Your task to perform on an android device: turn notification dots on Image 0: 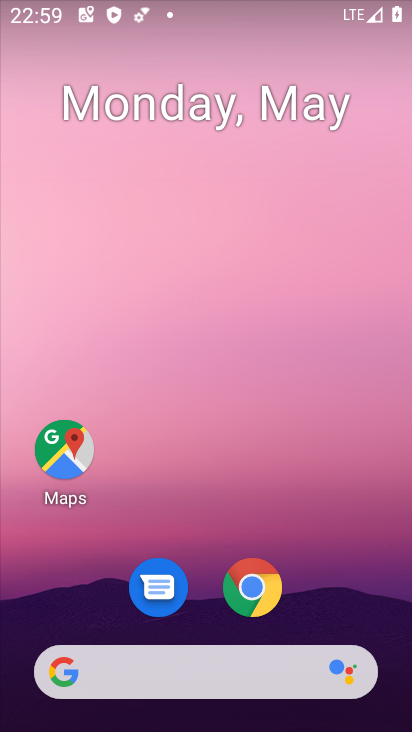
Step 0: drag from (193, 624) to (102, 44)
Your task to perform on an android device: turn notification dots on Image 1: 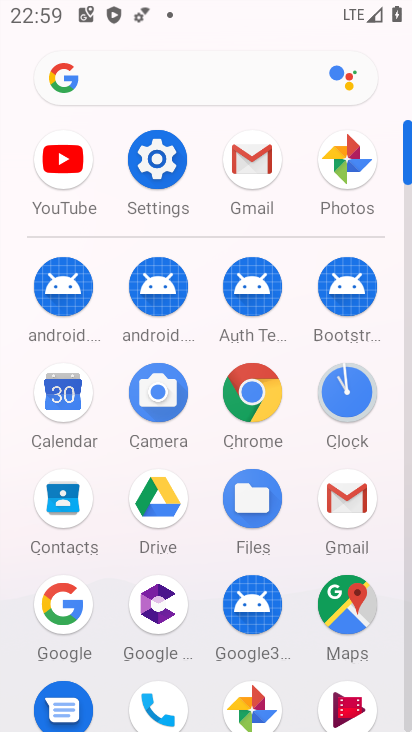
Step 1: click (172, 170)
Your task to perform on an android device: turn notification dots on Image 2: 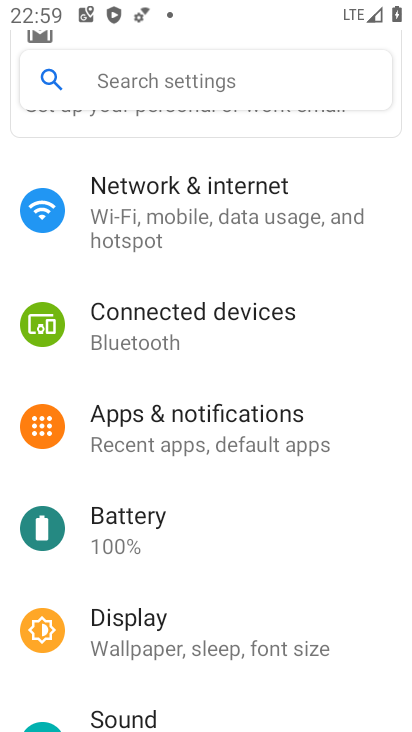
Step 2: click (256, 418)
Your task to perform on an android device: turn notification dots on Image 3: 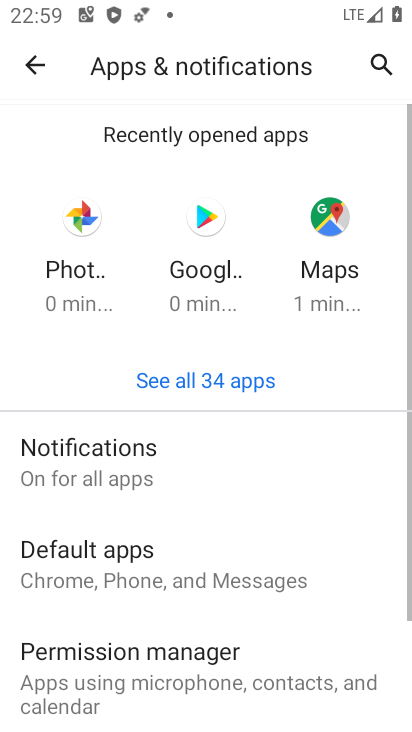
Step 3: click (124, 486)
Your task to perform on an android device: turn notification dots on Image 4: 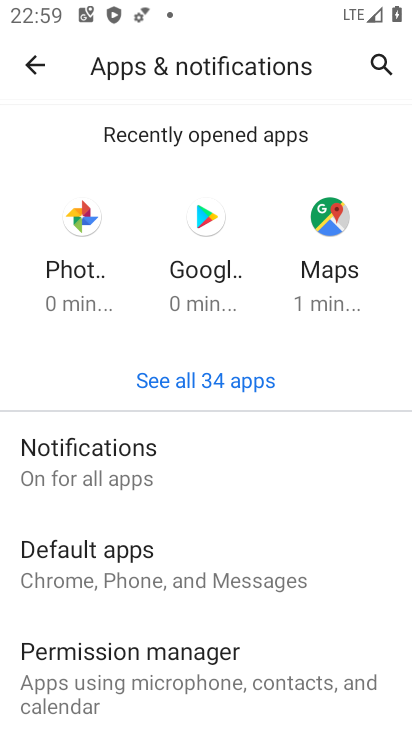
Step 4: drag from (123, 485) to (103, 7)
Your task to perform on an android device: turn notification dots on Image 5: 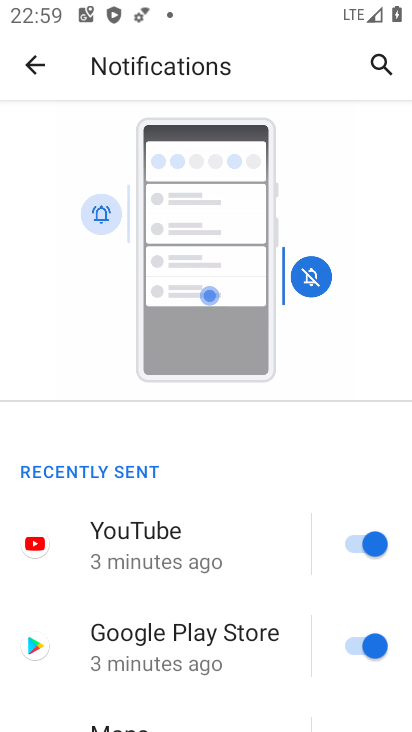
Step 5: drag from (173, 587) to (136, 71)
Your task to perform on an android device: turn notification dots on Image 6: 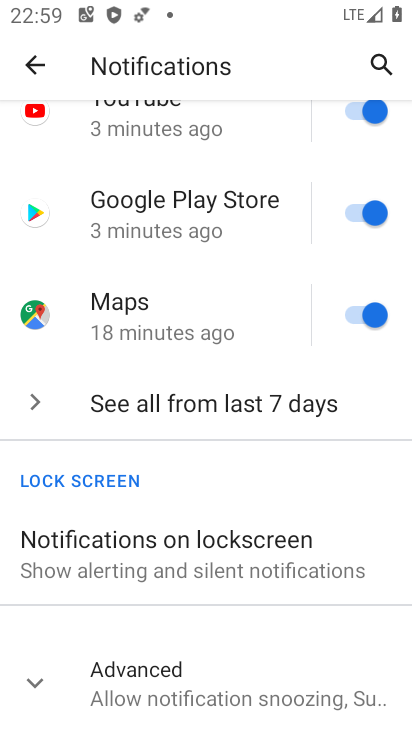
Step 6: click (178, 653)
Your task to perform on an android device: turn notification dots on Image 7: 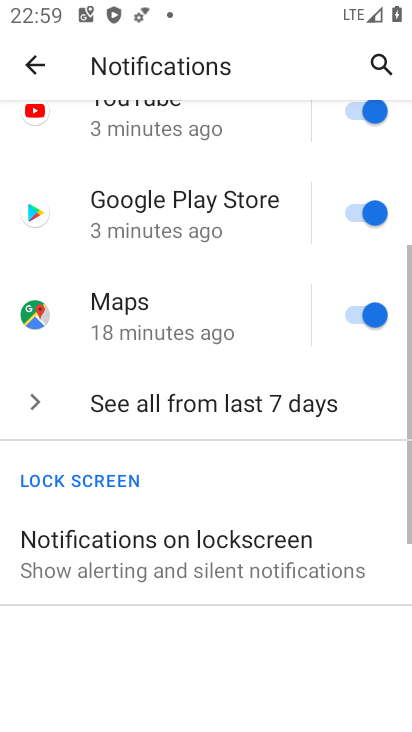
Step 7: task complete